Your task to perform on an android device: turn off notifications in google photos Image 0: 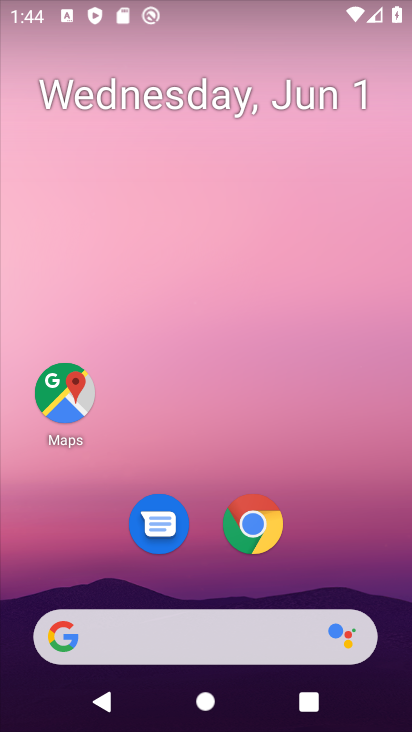
Step 0: drag from (361, 430) to (329, 16)
Your task to perform on an android device: turn off notifications in google photos Image 1: 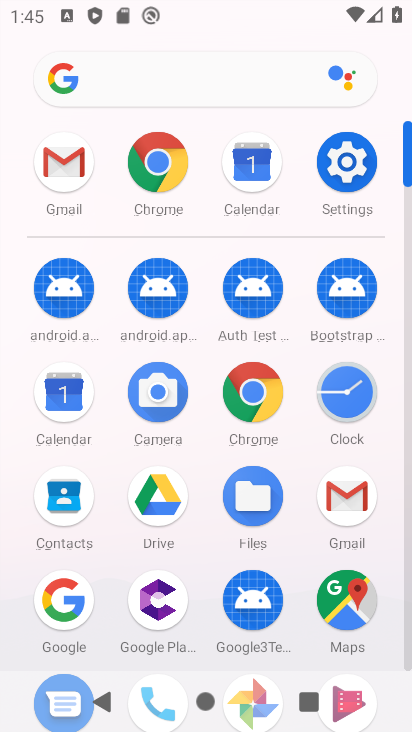
Step 1: click (350, 159)
Your task to perform on an android device: turn off notifications in google photos Image 2: 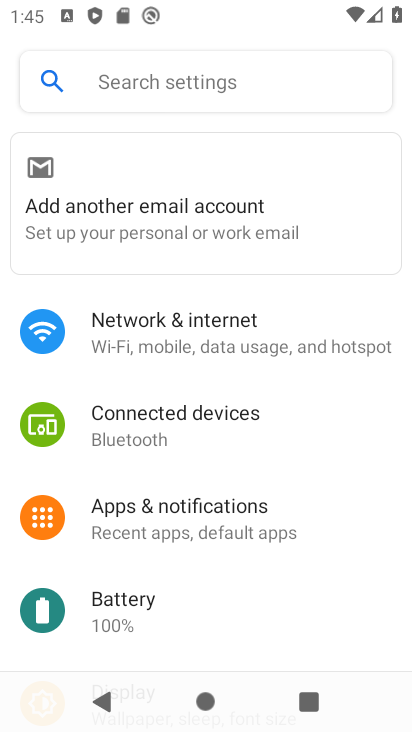
Step 2: click (252, 518)
Your task to perform on an android device: turn off notifications in google photos Image 3: 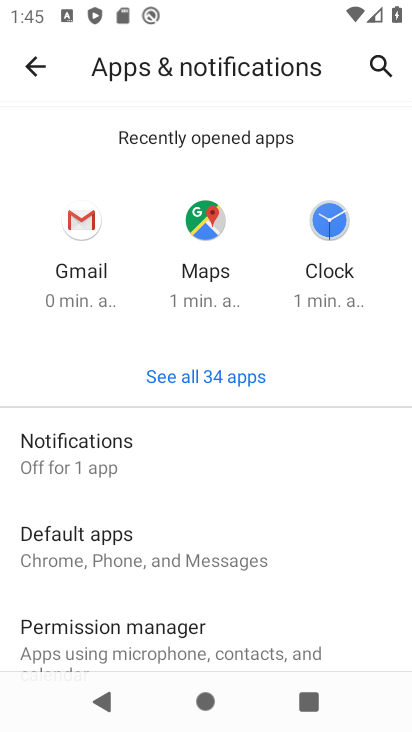
Step 3: click (235, 371)
Your task to perform on an android device: turn off notifications in google photos Image 4: 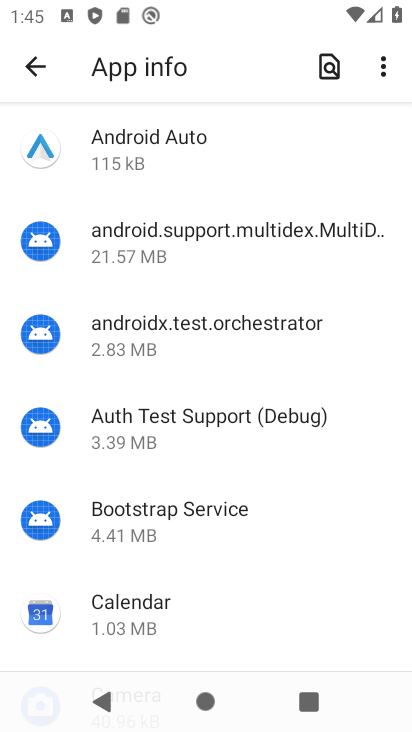
Step 4: drag from (260, 583) to (284, 92)
Your task to perform on an android device: turn off notifications in google photos Image 5: 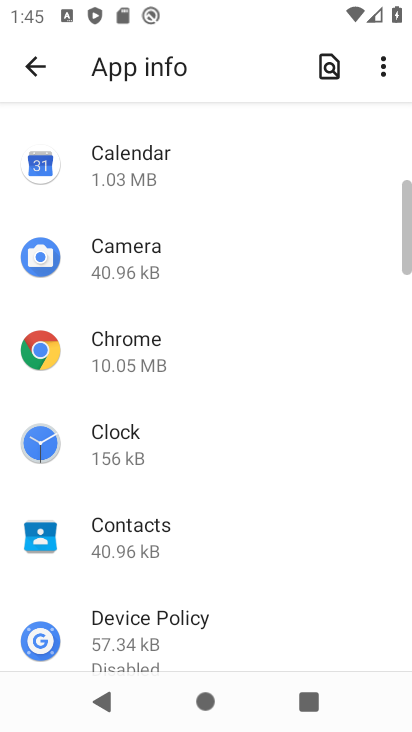
Step 5: drag from (199, 595) to (221, 21)
Your task to perform on an android device: turn off notifications in google photos Image 6: 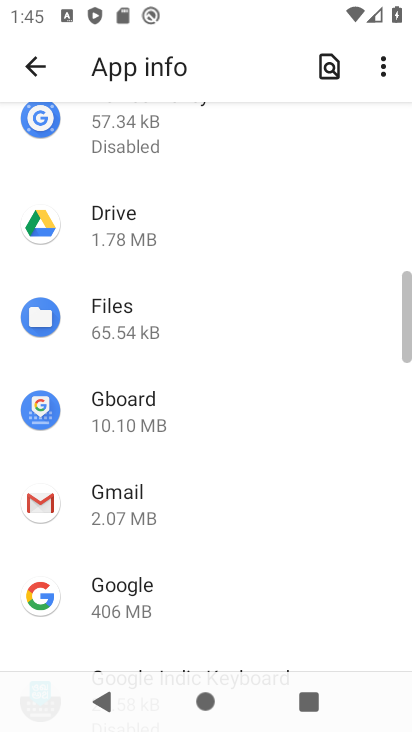
Step 6: drag from (187, 638) to (205, 2)
Your task to perform on an android device: turn off notifications in google photos Image 7: 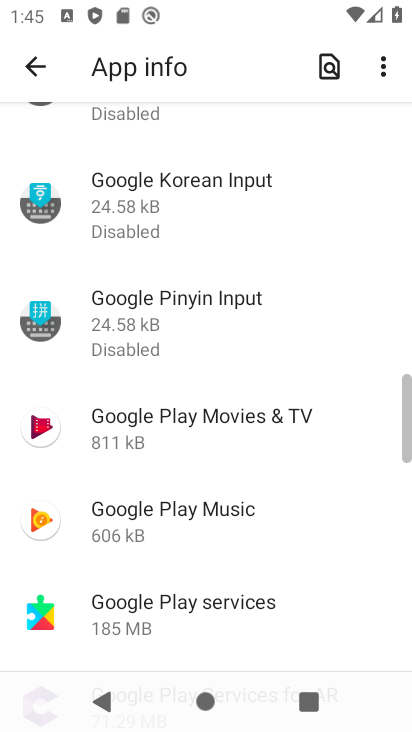
Step 7: drag from (241, 556) to (232, 85)
Your task to perform on an android device: turn off notifications in google photos Image 8: 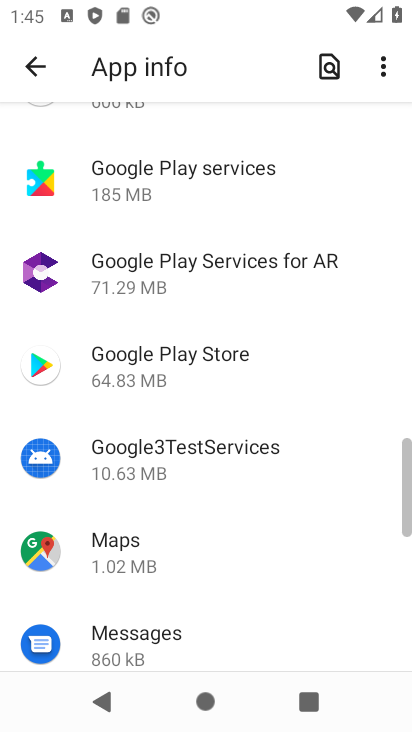
Step 8: drag from (236, 537) to (255, 55)
Your task to perform on an android device: turn off notifications in google photos Image 9: 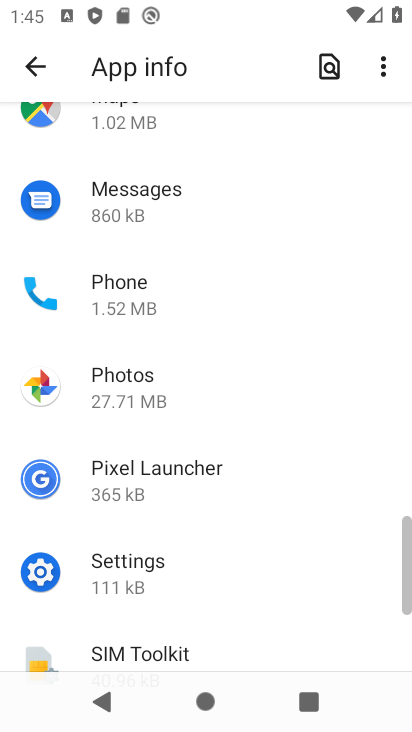
Step 9: click (142, 380)
Your task to perform on an android device: turn off notifications in google photos Image 10: 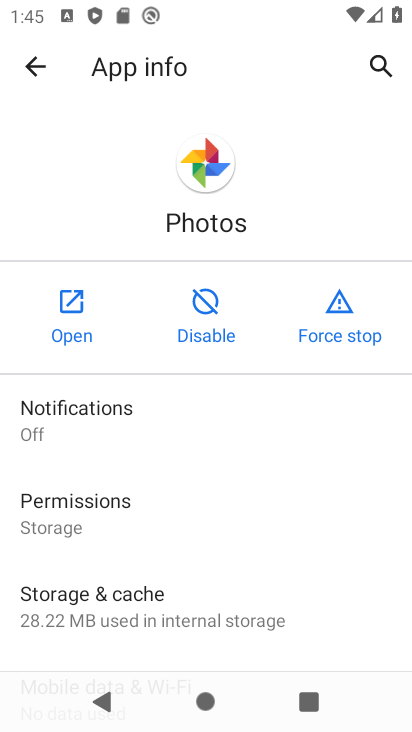
Step 10: task complete